Your task to perform on an android device: Go to internet settings Image 0: 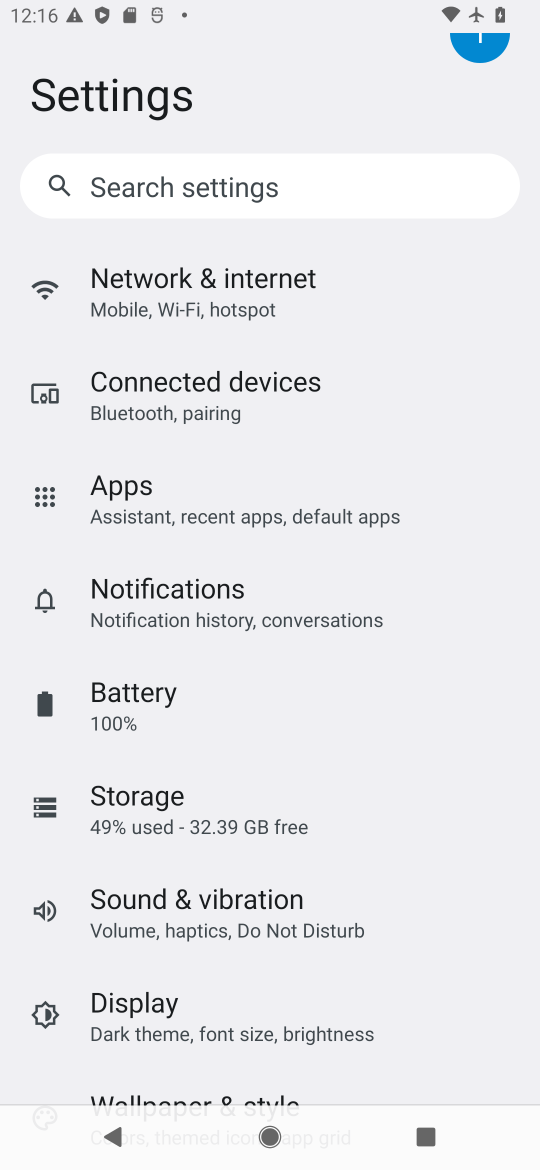
Step 0: click (241, 290)
Your task to perform on an android device: Go to internet settings Image 1: 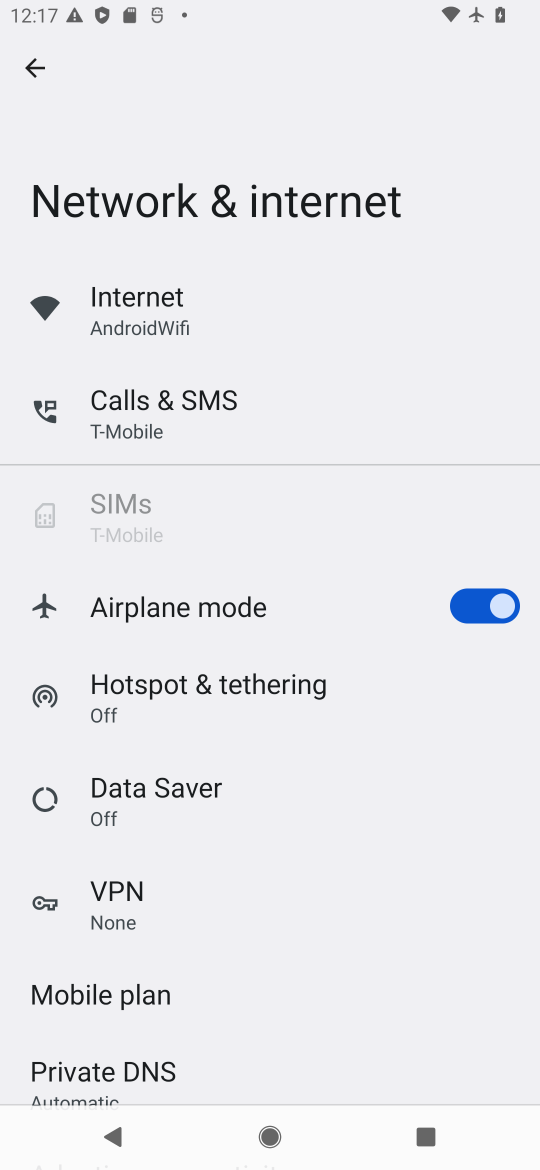
Step 1: click (171, 306)
Your task to perform on an android device: Go to internet settings Image 2: 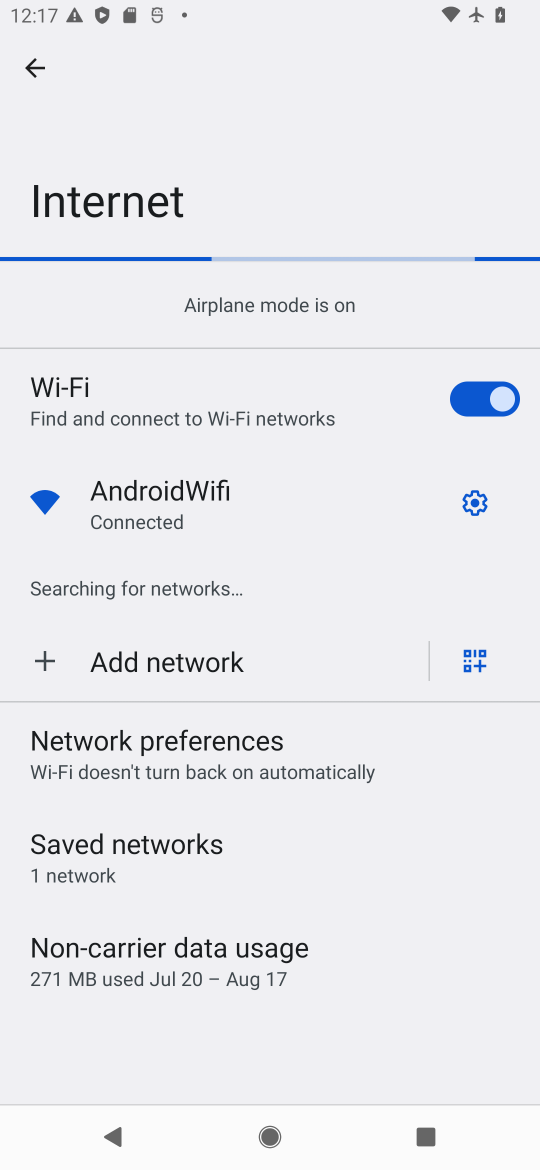
Step 2: task complete